Your task to perform on an android device: Open CNN.com Image 0: 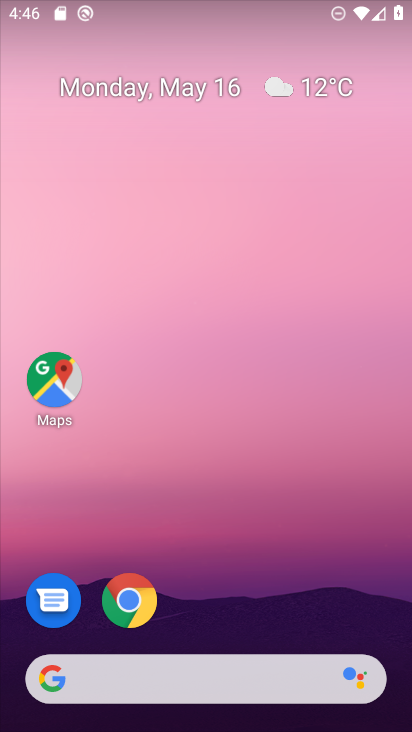
Step 0: click (135, 585)
Your task to perform on an android device: Open CNN.com Image 1: 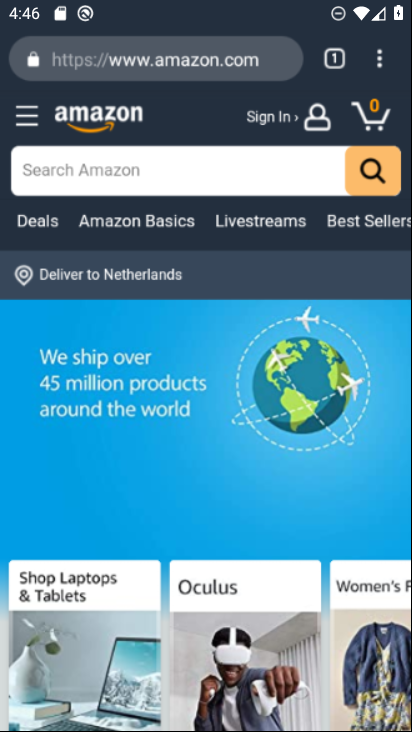
Step 1: click (125, 599)
Your task to perform on an android device: Open CNN.com Image 2: 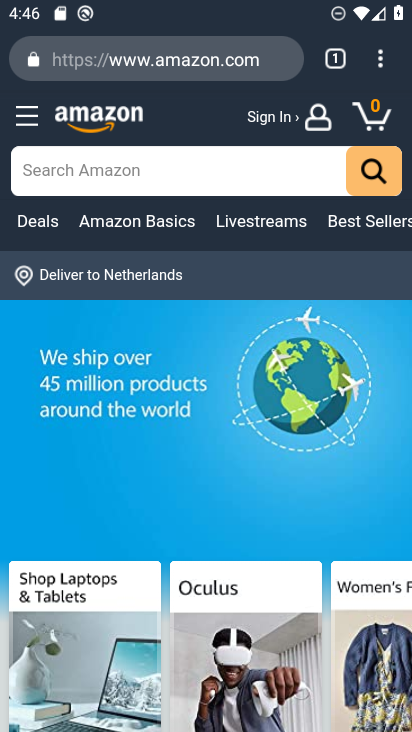
Step 2: click (163, 49)
Your task to perform on an android device: Open CNN.com Image 3: 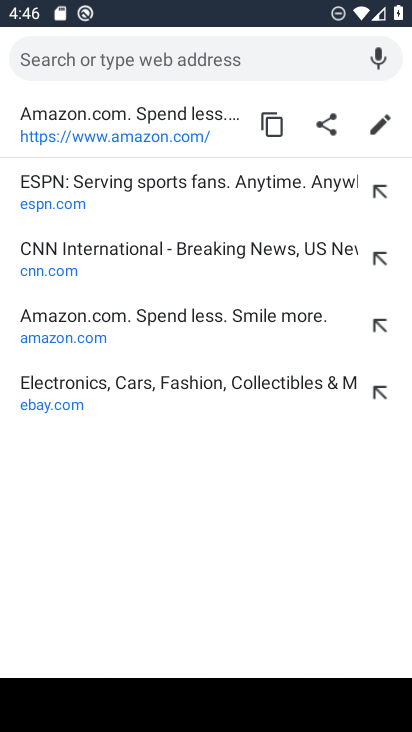
Step 3: click (48, 256)
Your task to perform on an android device: Open CNN.com Image 4: 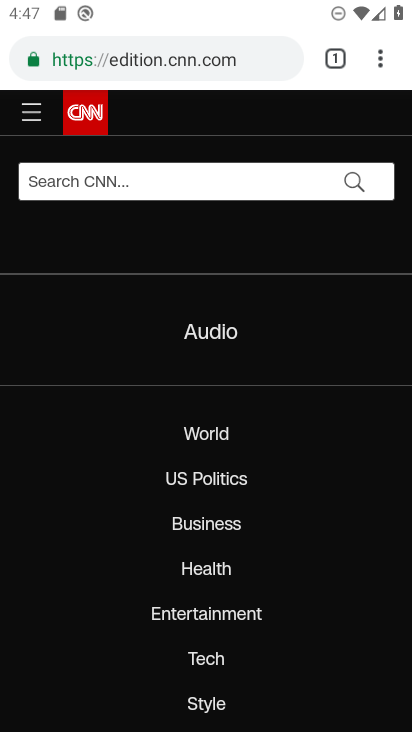
Step 4: task complete